Your task to perform on an android device: turn off notifications in google photos Image 0: 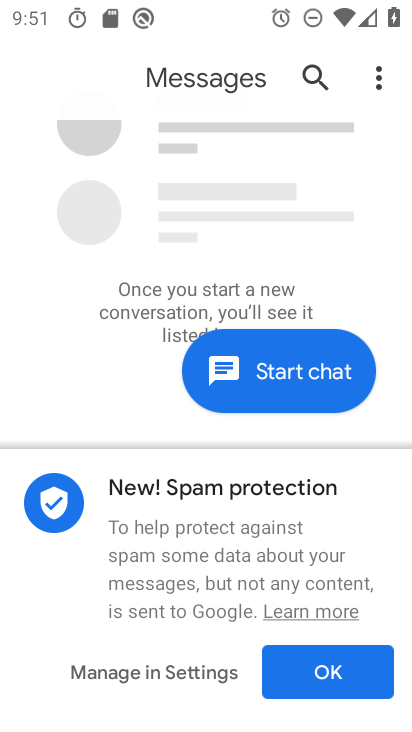
Step 0: press home button
Your task to perform on an android device: turn off notifications in google photos Image 1: 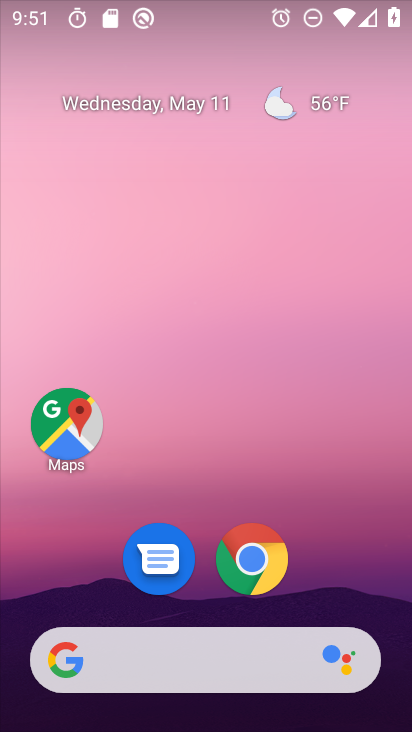
Step 1: click (54, 430)
Your task to perform on an android device: turn off notifications in google photos Image 2: 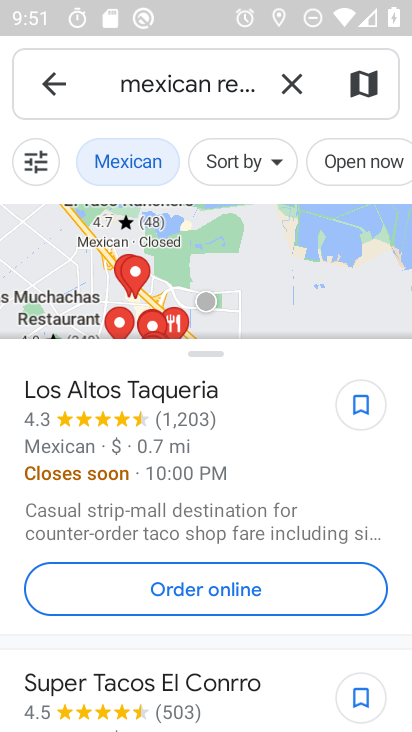
Step 2: press home button
Your task to perform on an android device: turn off notifications in google photos Image 3: 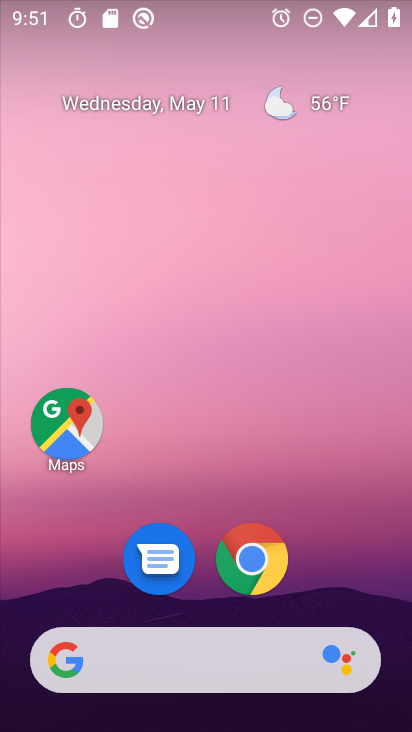
Step 3: drag from (327, 579) to (330, 132)
Your task to perform on an android device: turn off notifications in google photos Image 4: 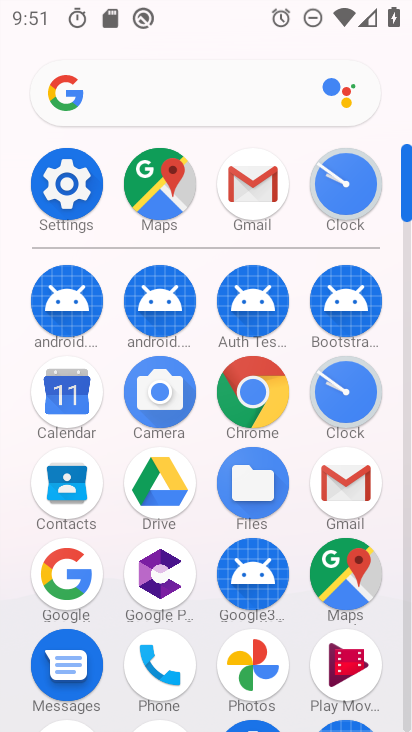
Step 4: click (256, 672)
Your task to perform on an android device: turn off notifications in google photos Image 5: 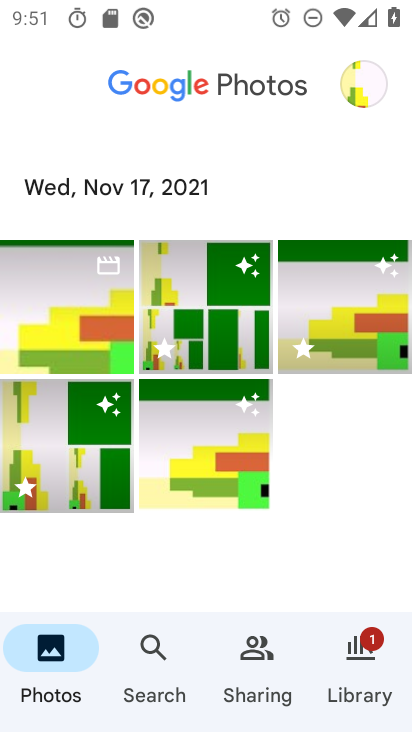
Step 5: click (377, 105)
Your task to perform on an android device: turn off notifications in google photos Image 6: 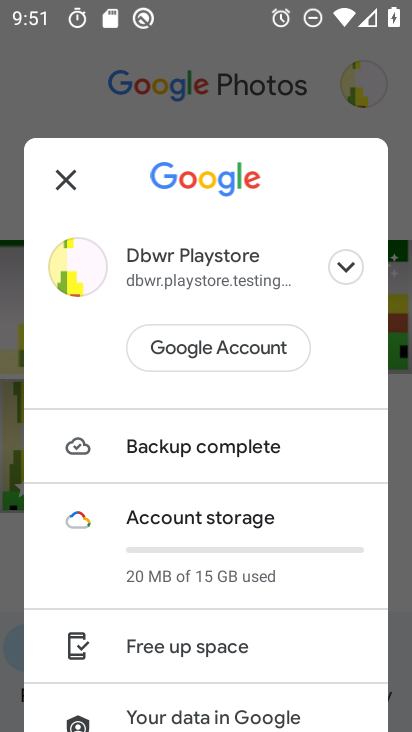
Step 6: drag from (246, 598) to (235, 234)
Your task to perform on an android device: turn off notifications in google photos Image 7: 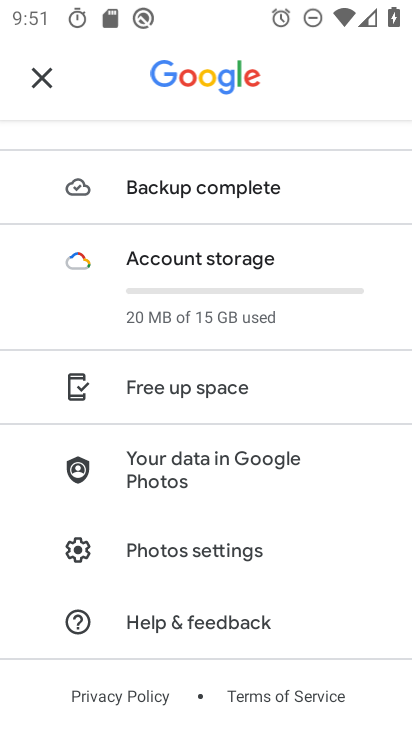
Step 7: click (206, 542)
Your task to perform on an android device: turn off notifications in google photos Image 8: 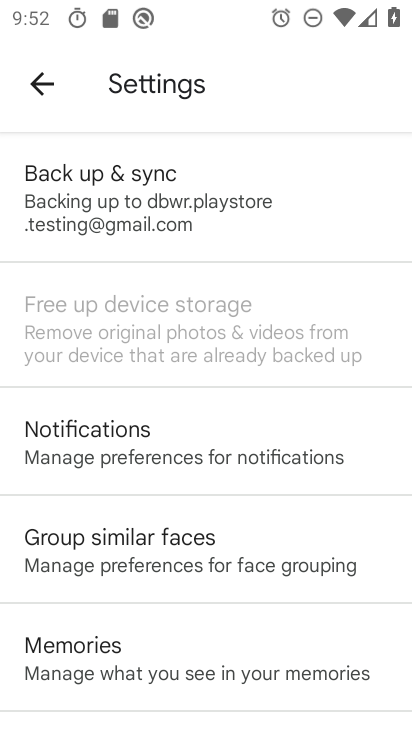
Step 8: click (236, 460)
Your task to perform on an android device: turn off notifications in google photos Image 9: 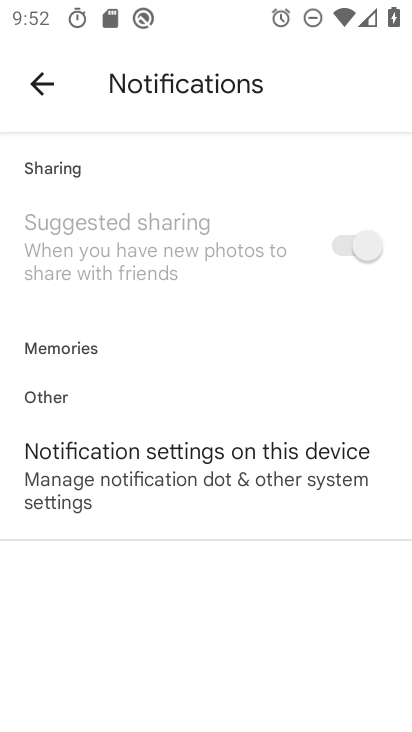
Step 9: task complete